Your task to perform on an android device: delete a single message in the gmail app Image 0: 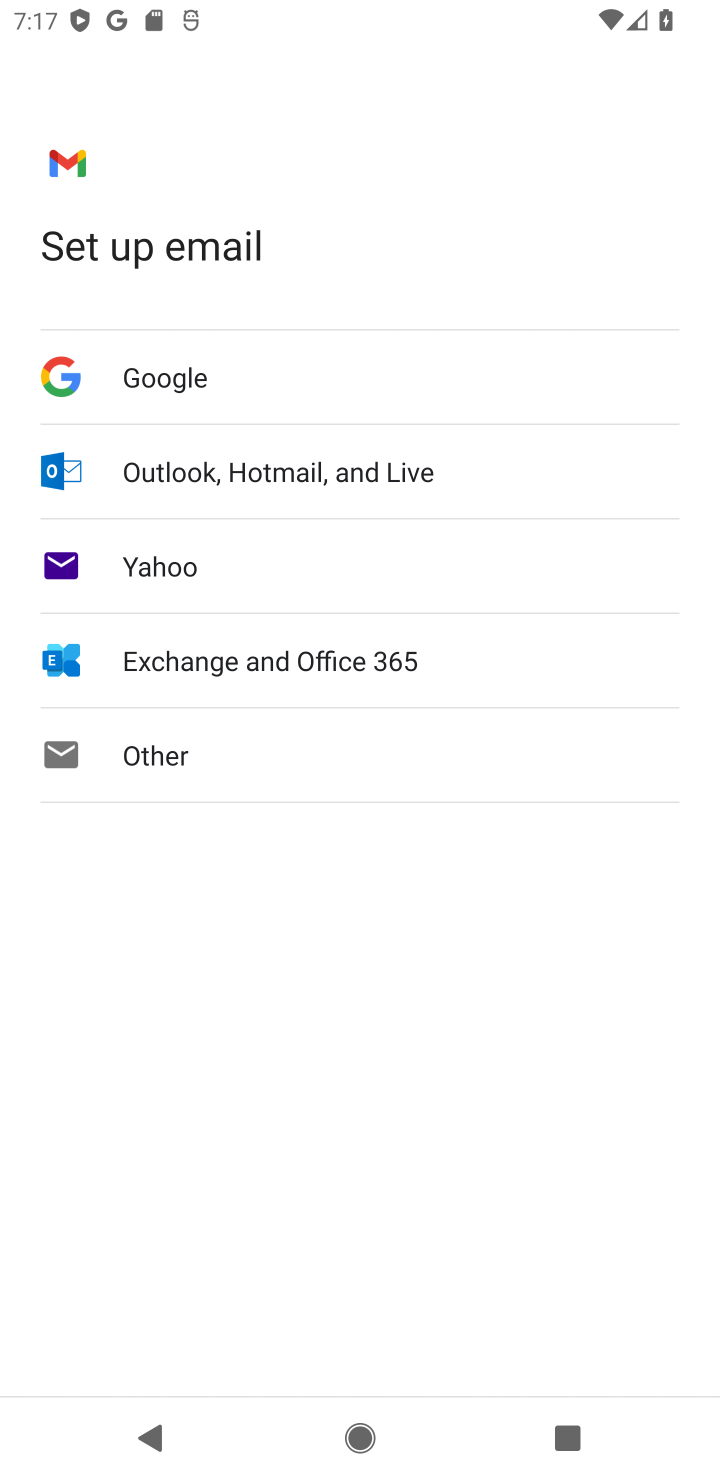
Step 0: press home button
Your task to perform on an android device: delete a single message in the gmail app Image 1: 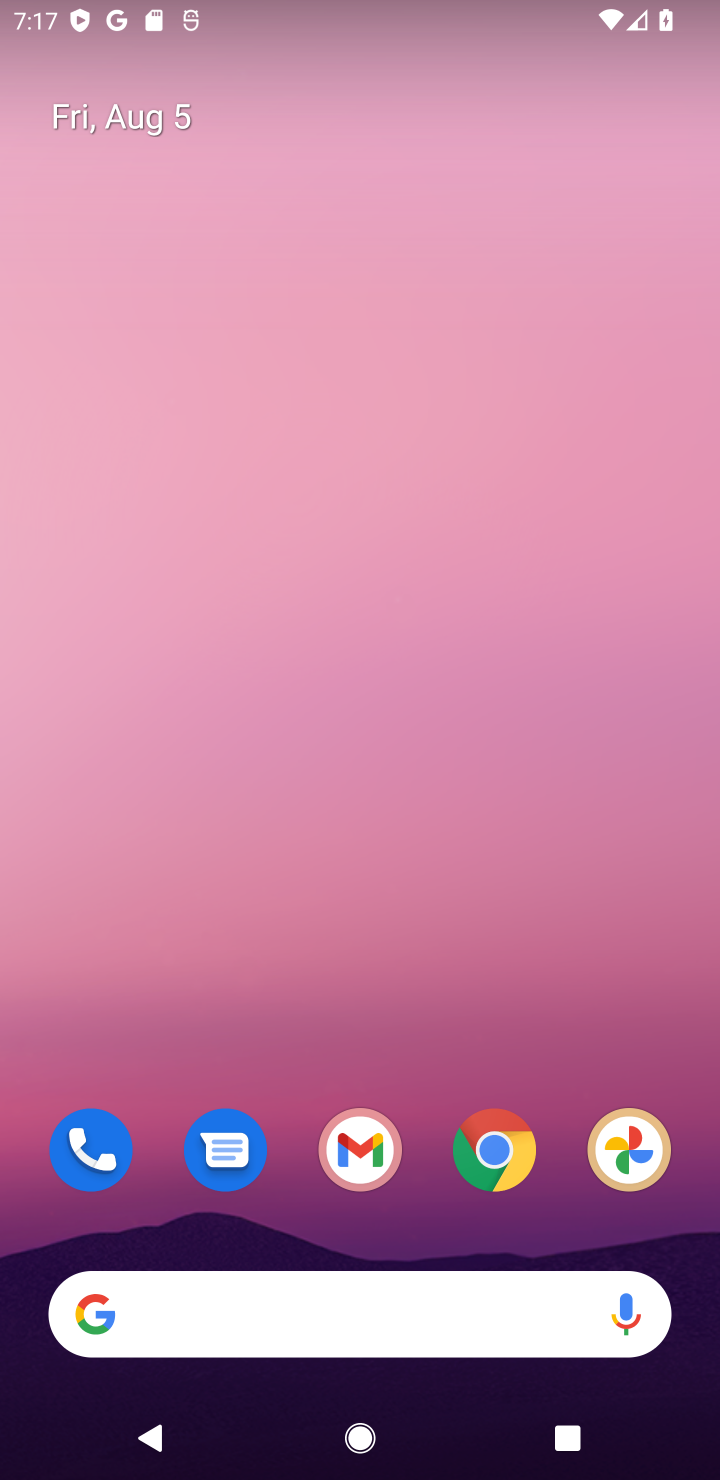
Step 1: drag from (403, 1078) to (414, 463)
Your task to perform on an android device: delete a single message in the gmail app Image 2: 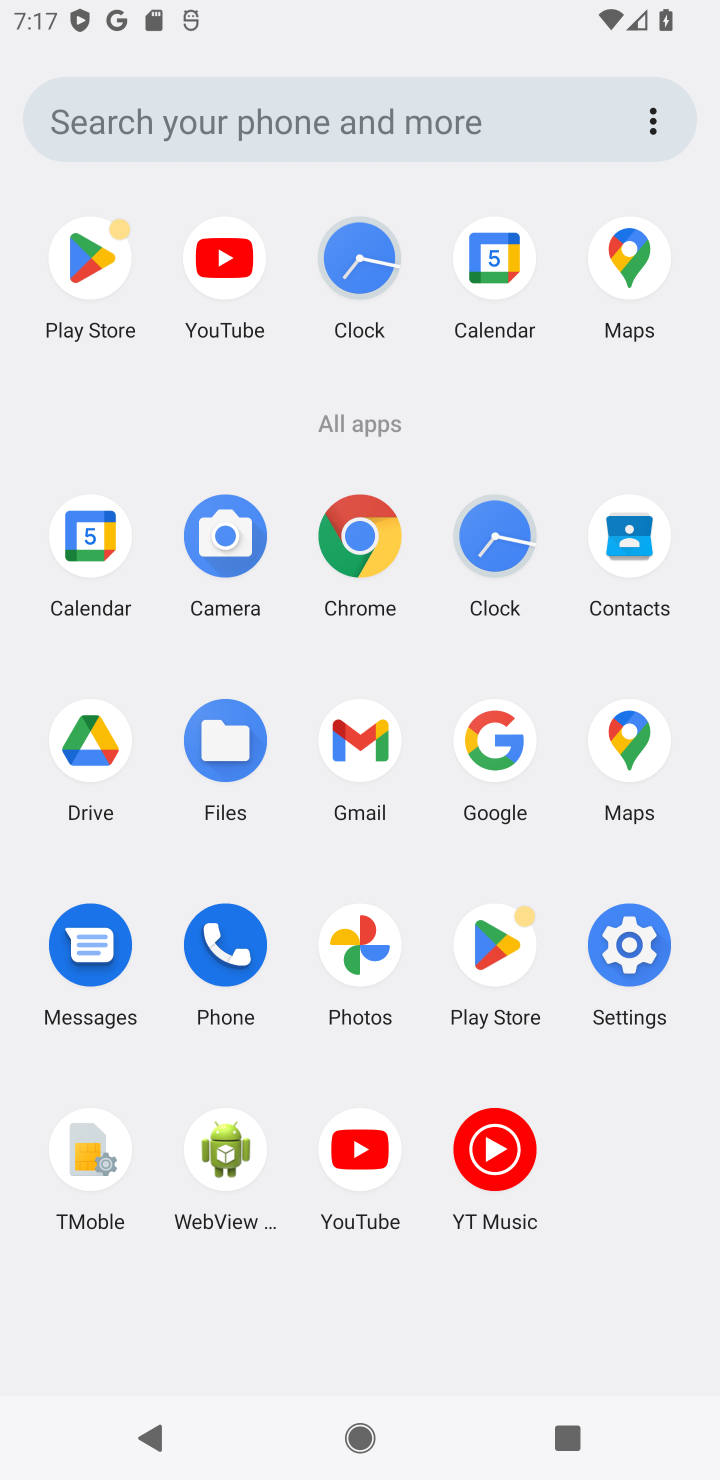
Step 2: click (359, 737)
Your task to perform on an android device: delete a single message in the gmail app Image 3: 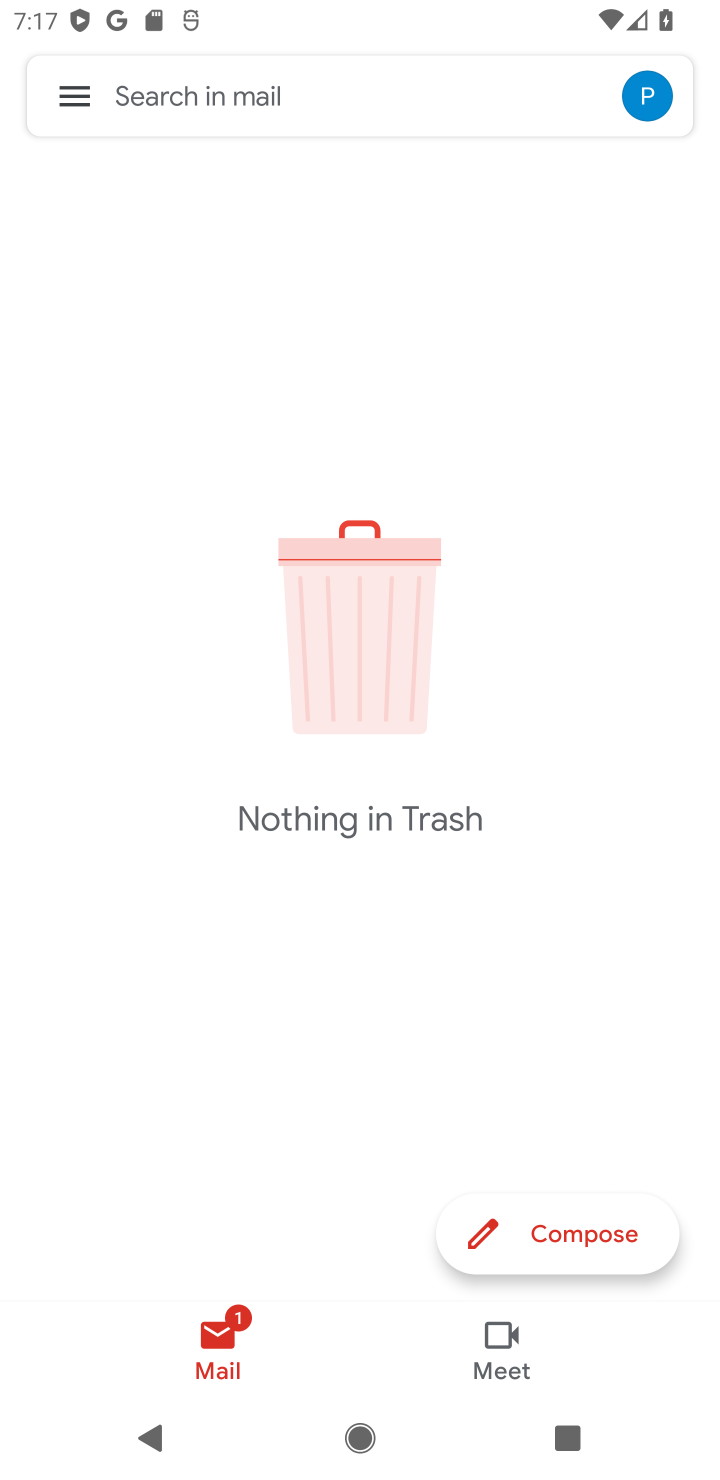
Step 3: click (72, 84)
Your task to perform on an android device: delete a single message in the gmail app Image 4: 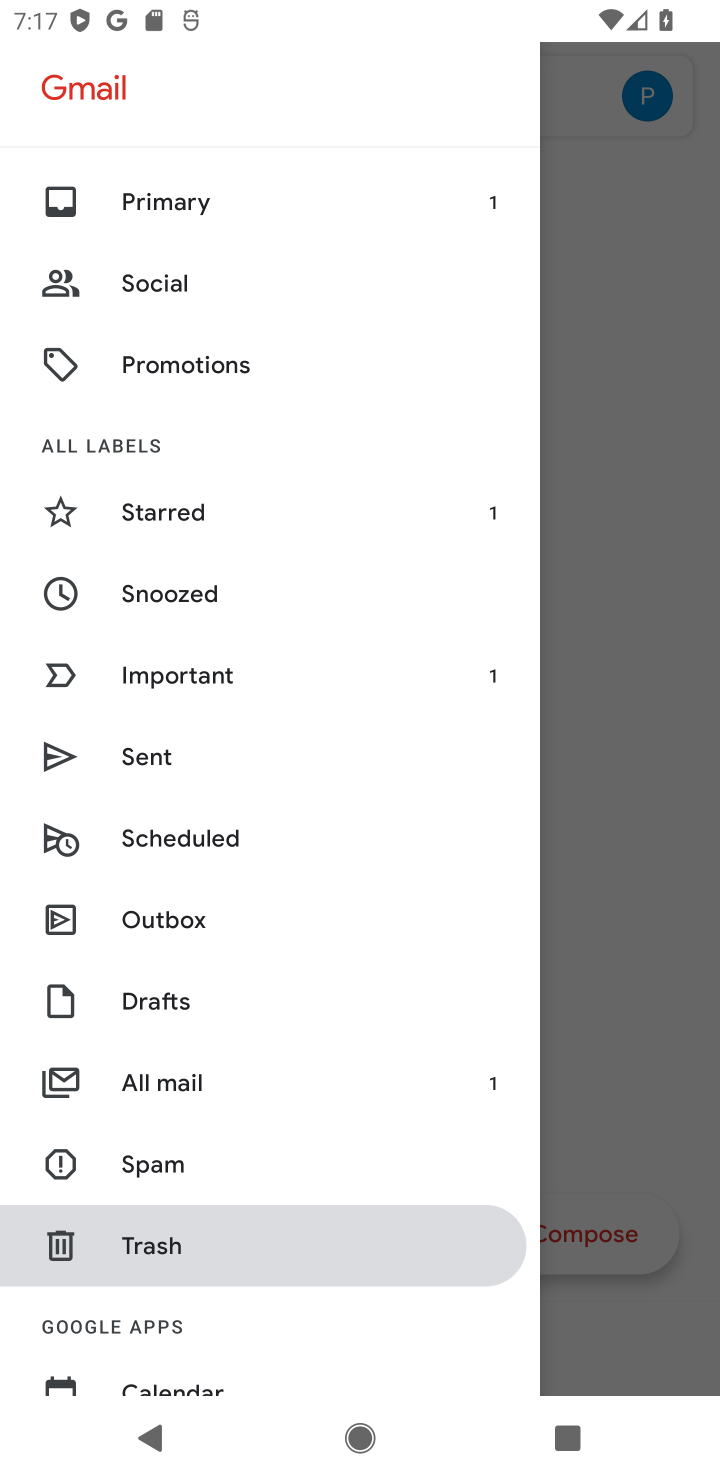
Step 4: click (224, 1087)
Your task to perform on an android device: delete a single message in the gmail app Image 5: 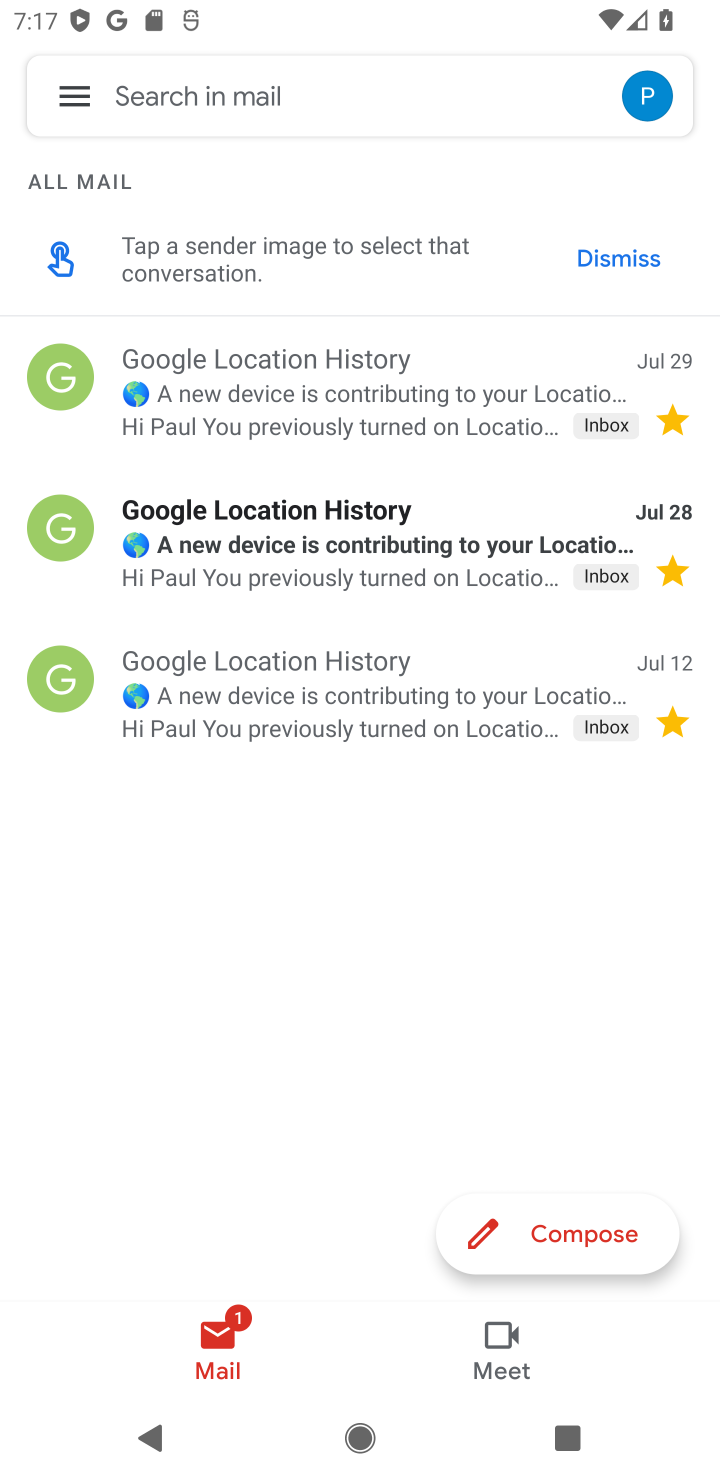
Step 5: click (351, 389)
Your task to perform on an android device: delete a single message in the gmail app Image 6: 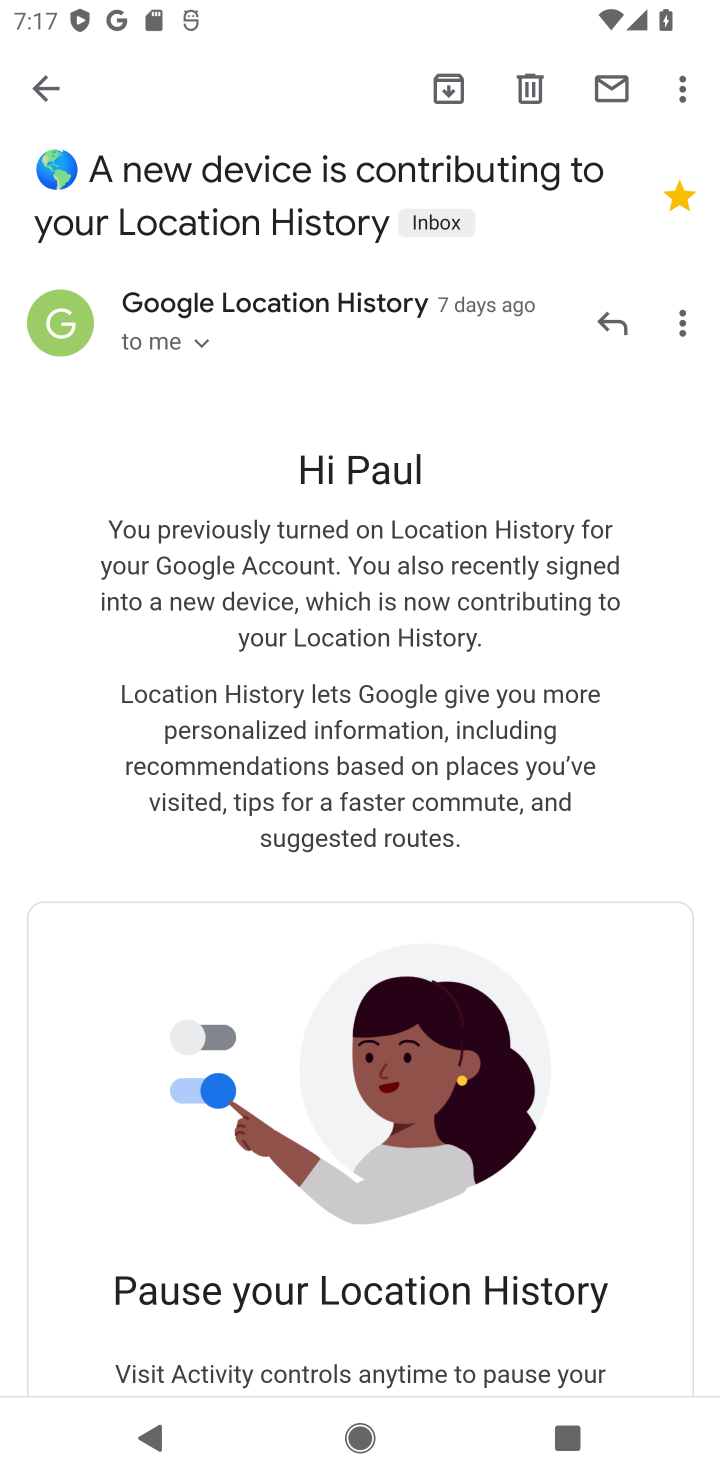
Step 6: click (538, 89)
Your task to perform on an android device: delete a single message in the gmail app Image 7: 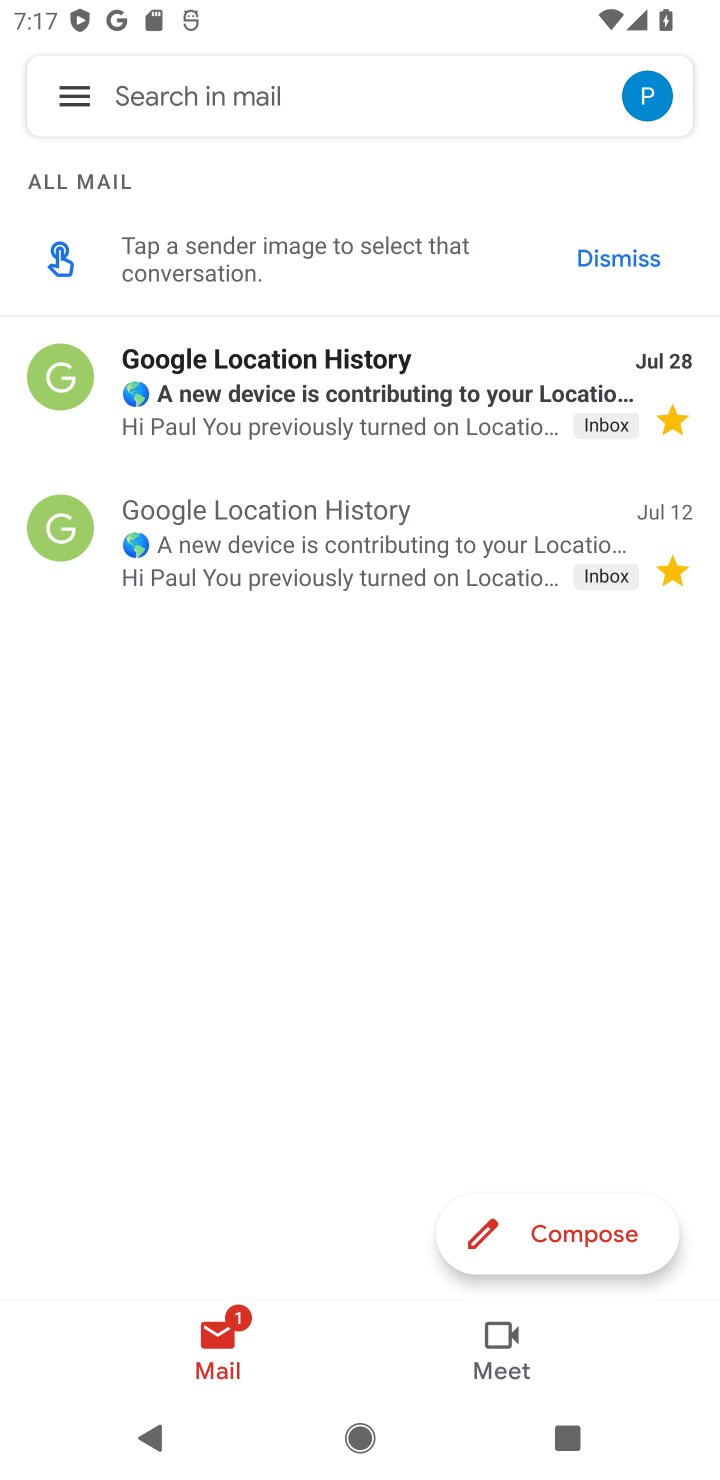
Step 7: task complete